Your task to perform on an android device: move an email to a new category in the gmail app Image 0: 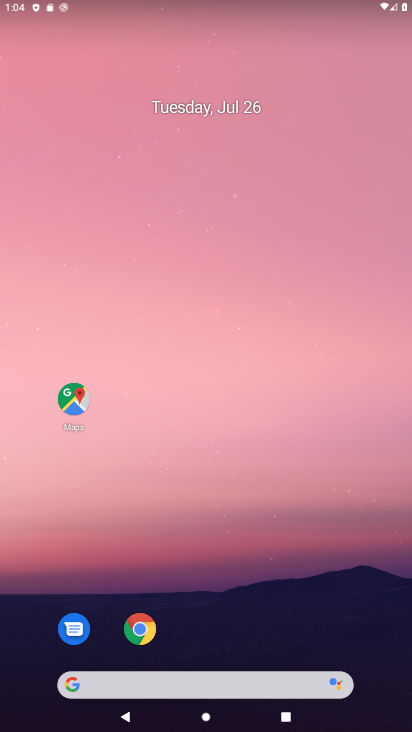
Step 0: drag from (325, 667) to (281, 17)
Your task to perform on an android device: move an email to a new category in the gmail app Image 1: 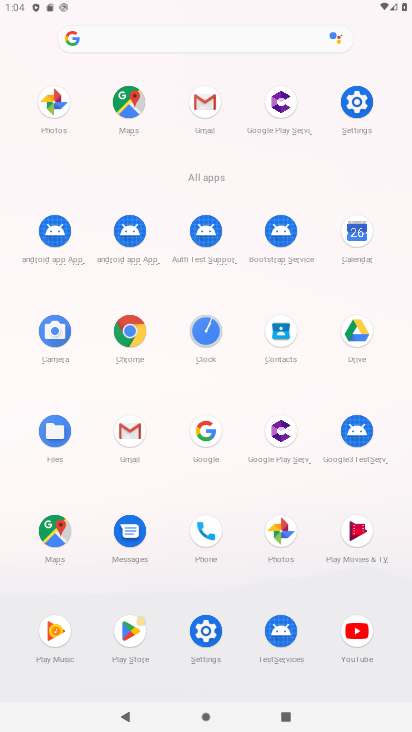
Step 1: click (126, 433)
Your task to perform on an android device: move an email to a new category in the gmail app Image 2: 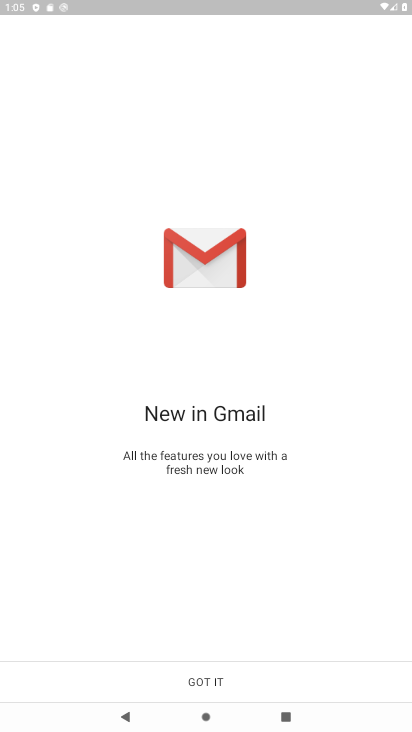
Step 2: click (280, 663)
Your task to perform on an android device: move an email to a new category in the gmail app Image 3: 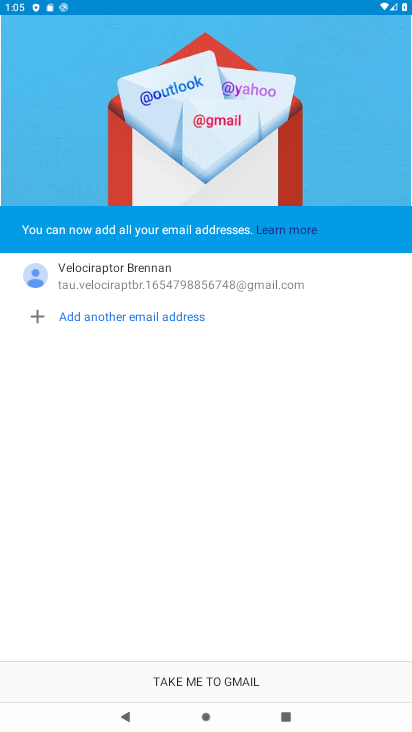
Step 3: click (280, 674)
Your task to perform on an android device: move an email to a new category in the gmail app Image 4: 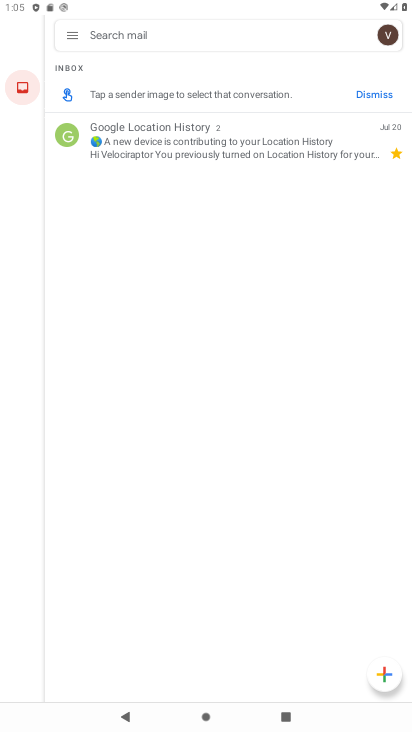
Step 4: click (111, 133)
Your task to perform on an android device: move an email to a new category in the gmail app Image 5: 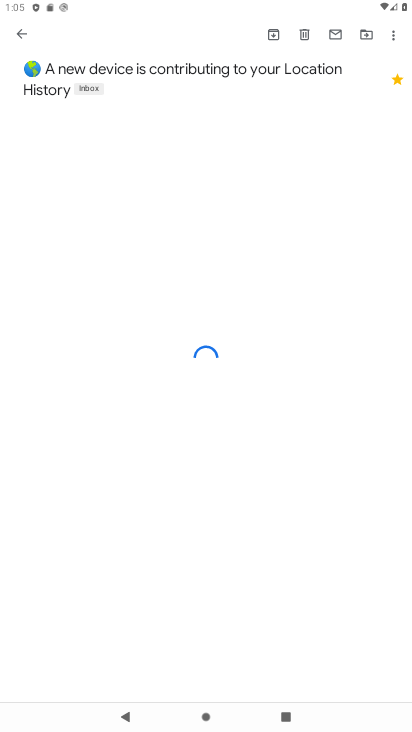
Step 5: click (394, 28)
Your task to perform on an android device: move an email to a new category in the gmail app Image 6: 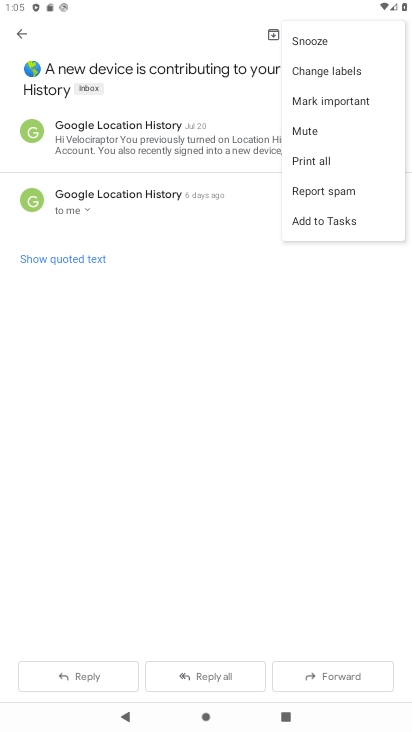
Step 6: click (310, 190)
Your task to perform on an android device: move an email to a new category in the gmail app Image 7: 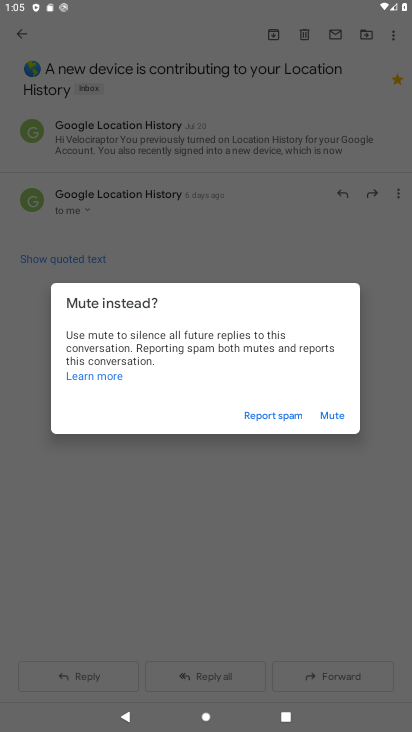
Step 7: task complete